Your task to perform on an android device: Go to network settings Image 0: 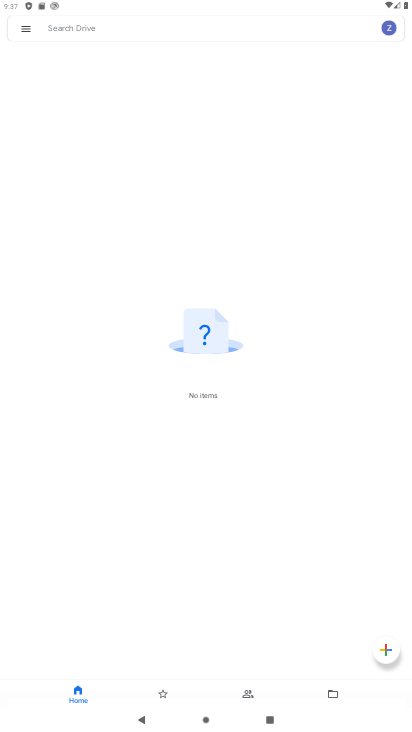
Step 0: press home button
Your task to perform on an android device: Go to network settings Image 1: 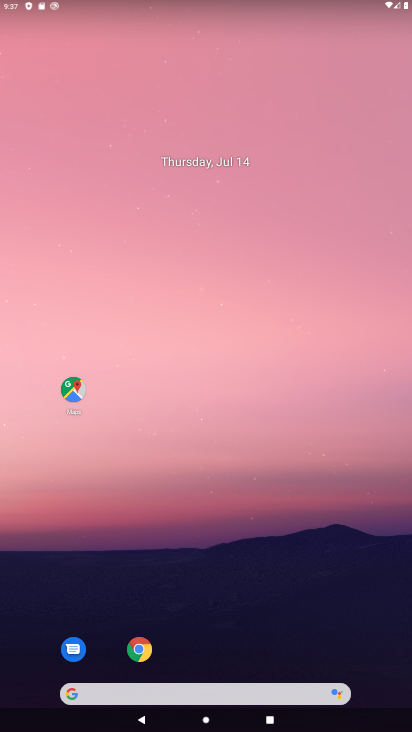
Step 1: drag from (223, 632) to (229, 153)
Your task to perform on an android device: Go to network settings Image 2: 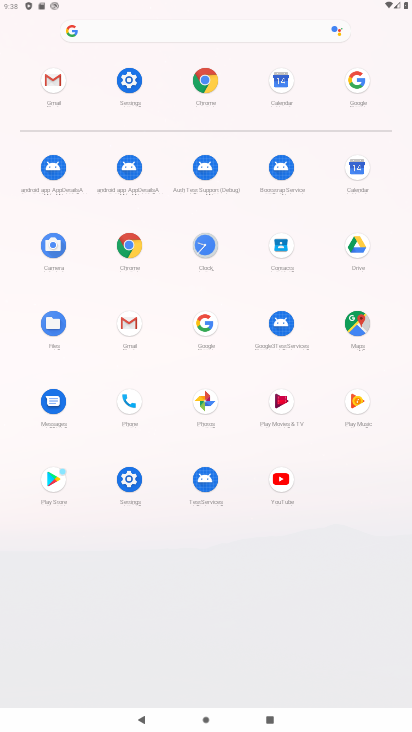
Step 2: click (132, 82)
Your task to perform on an android device: Go to network settings Image 3: 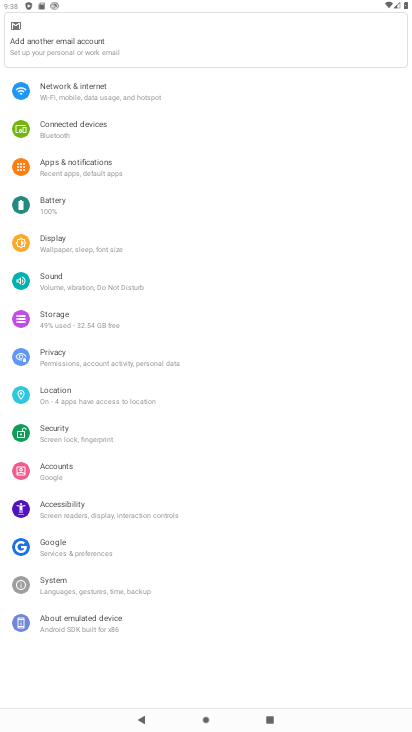
Step 3: click (132, 82)
Your task to perform on an android device: Go to network settings Image 4: 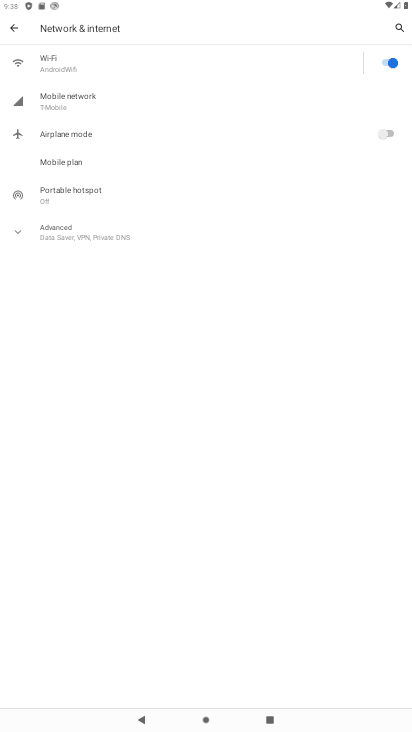
Step 4: task complete